Your task to perform on an android device: turn off sleep mode Image 0: 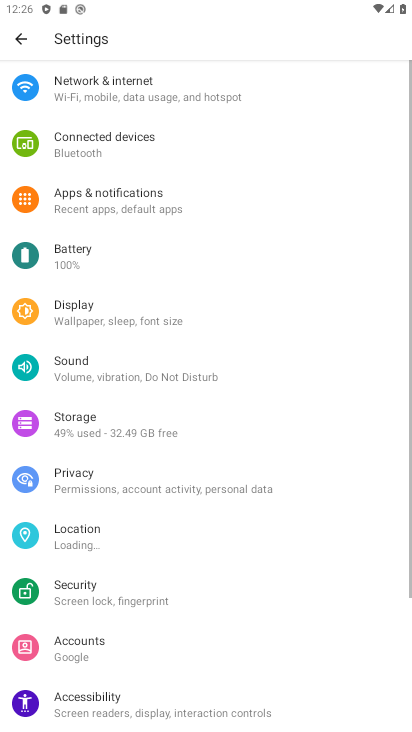
Step 0: press home button
Your task to perform on an android device: turn off sleep mode Image 1: 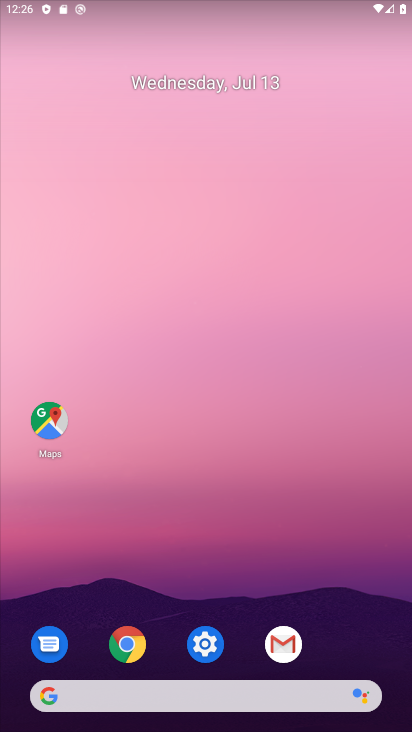
Step 1: click (204, 658)
Your task to perform on an android device: turn off sleep mode Image 2: 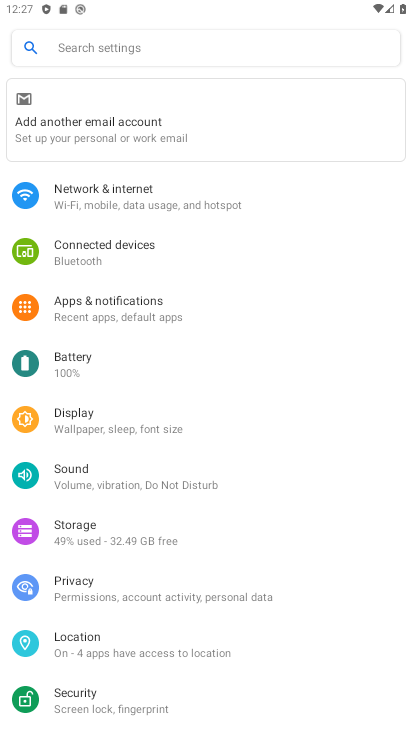
Step 2: click (99, 52)
Your task to perform on an android device: turn off sleep mode Image 3: 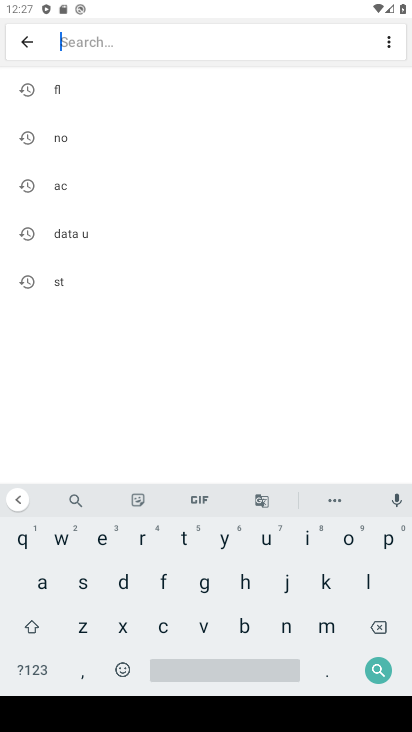
Step 3: click (78, 590)
Your task to perform on an android device: turn off sleep mode Image 4: 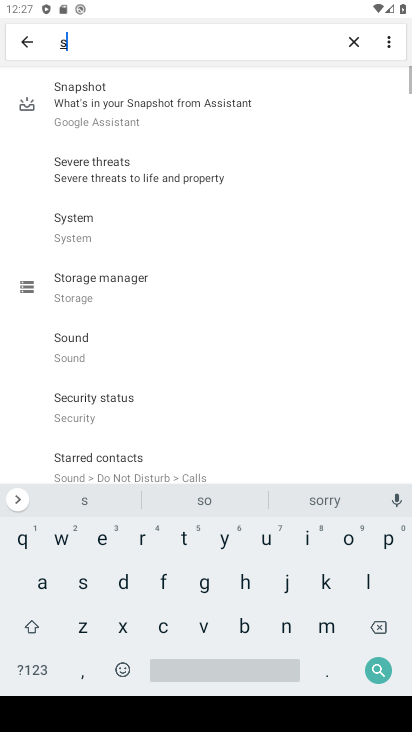
Step 4: click (368, 575)
Your task to perform on an android device: turn off sleep mode Image 5: 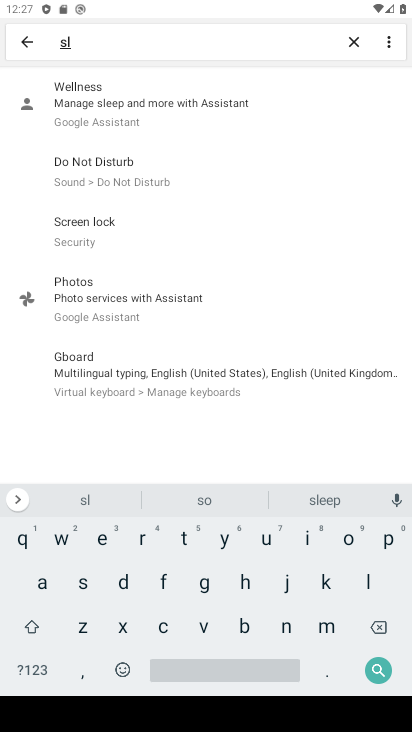
Step 5: click (107, 102)
Your task to perform on an android device: turn off sleep mode Image 6: 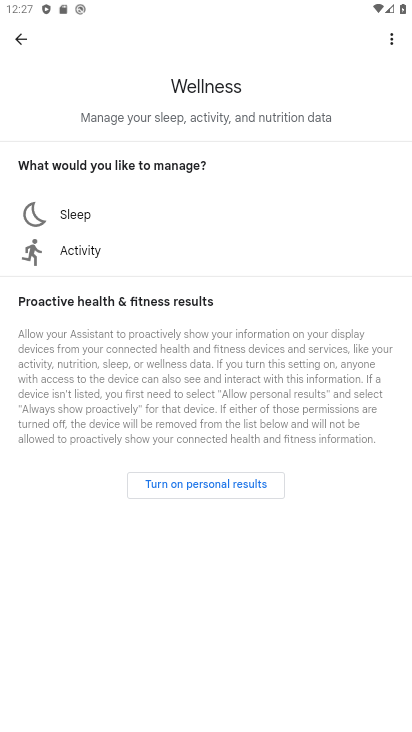
Step 6: click (116, 213)
Your task to perform on an android device: turn off sleep mode Image 7: 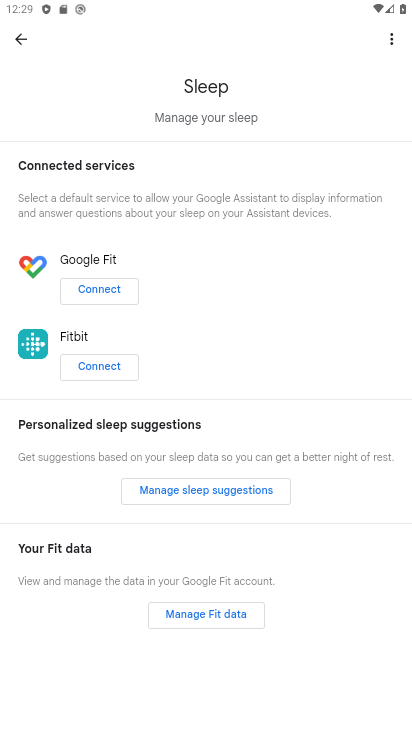
Step 7: task complete